Your task to perform on an android device: turn off javascript in the chrome app Image 0: 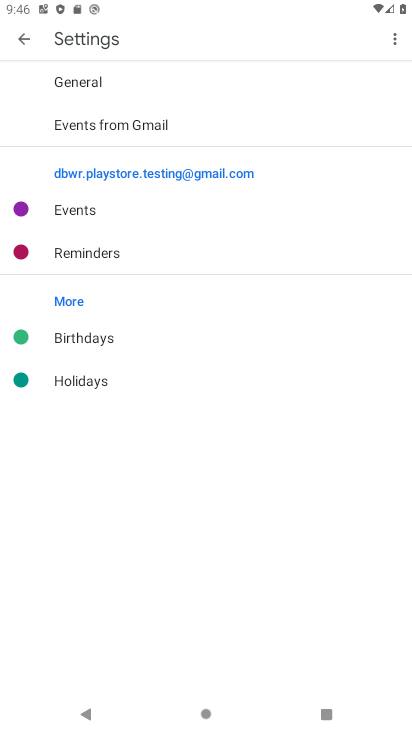
Step 0: press back button
Your task to perform on an android device: turn off javascript in the chrome app Image 1: 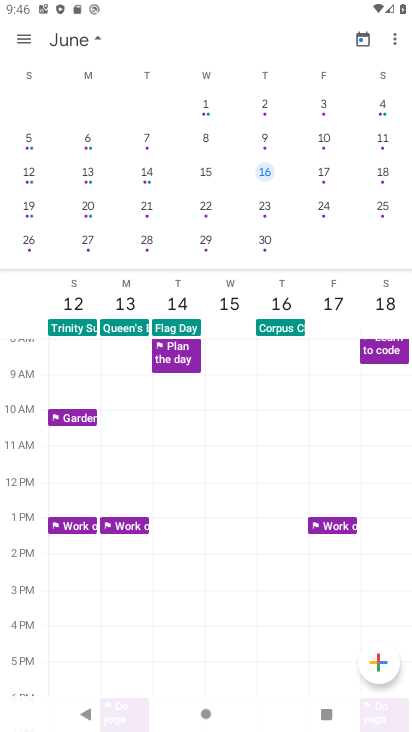
Step 1: press home button
Your task to perform on an android device: turn off javascript in the chrome app Image 2: 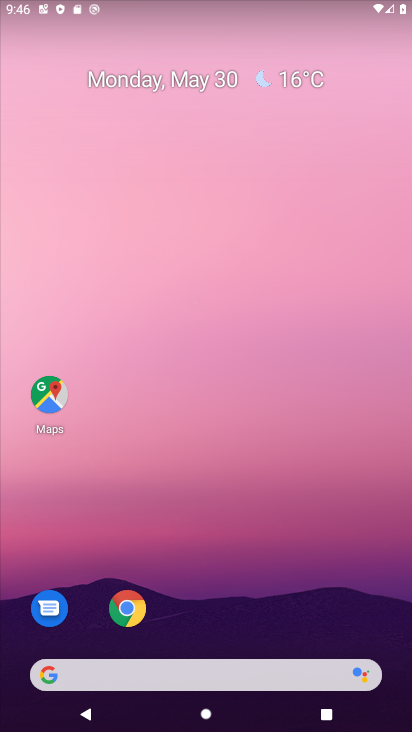
Step 2: click (131, 604)
Your task to perform on an android device: turn off javascript in the chrome app Image 3: 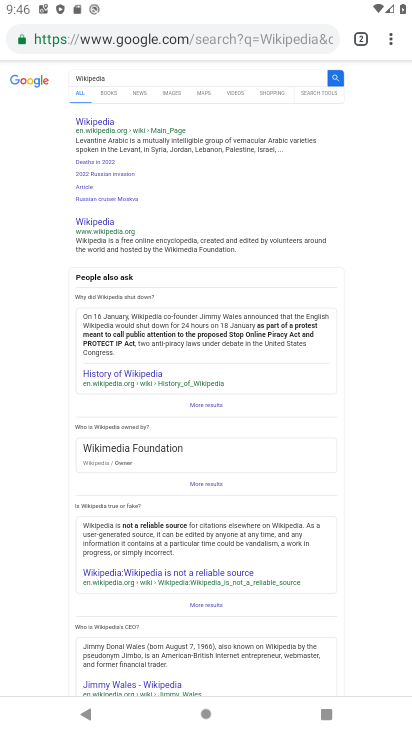
Step 3: click (390, 32)
Your task to perform on an android device: turn off javascript in the chrome app Image 4: 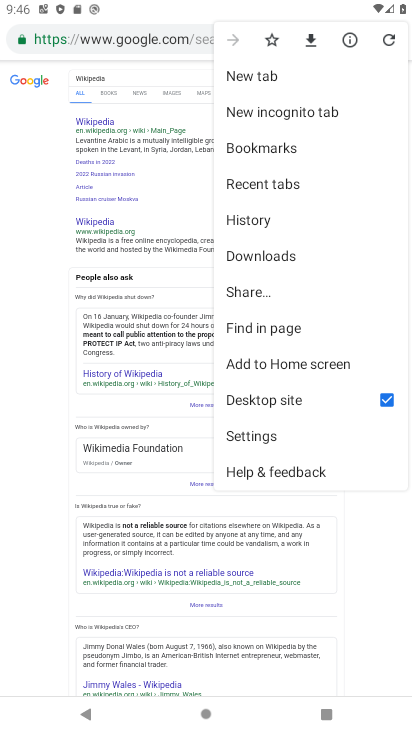
Step 4: click (259, 433)
Your task to perform on an android device: turn off javascript in the chrome app Image 5: 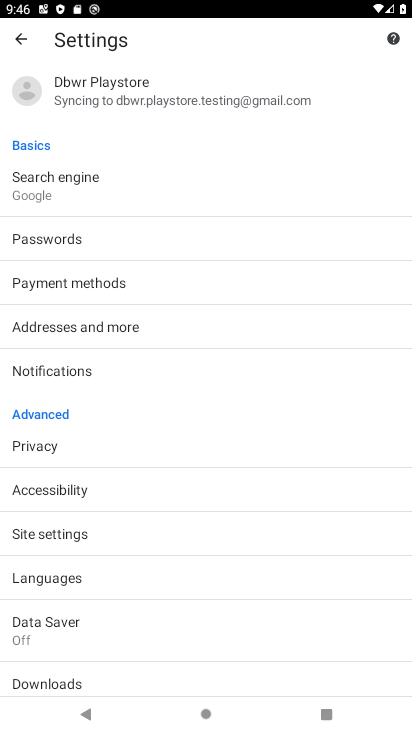
Step 5: drag from (129, 658) to (134, 447)
Your task to perform on an android device: turn off javascript in the chrome app Image 6: 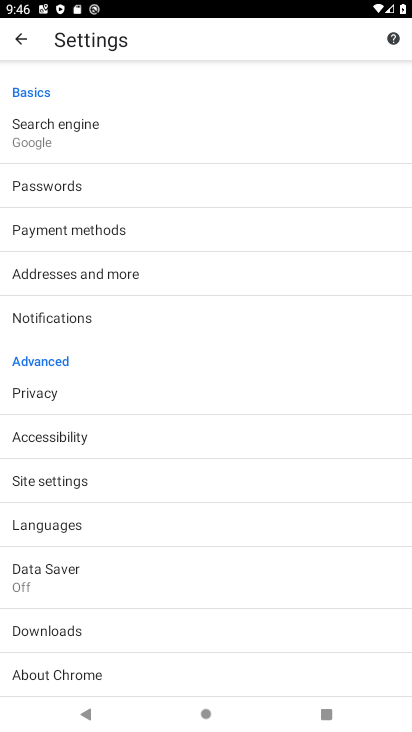
Step 6: click (43, 481)
Your task to perform on an android device: turn off javascript in the chrome app Image 7: 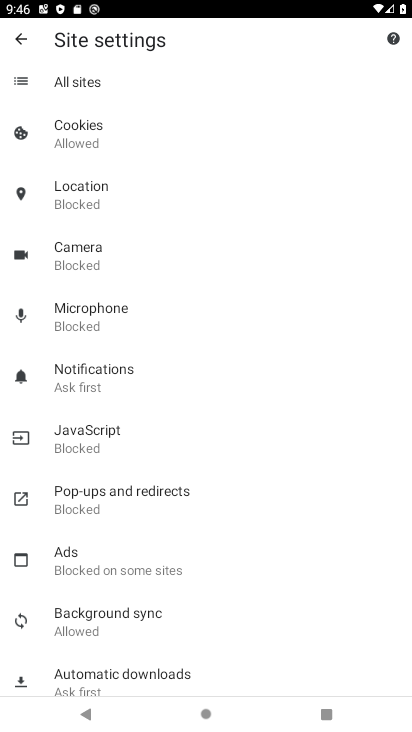
Step 7: click (89, 432)
Your task to perform on an android device: turn off javascript in the chrome app Image 8: 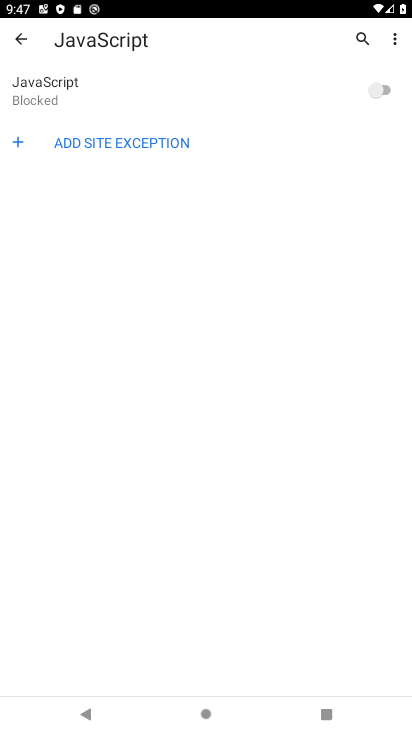
Step 8: task complete